Your task to perform on an android device: toggle show notifications on the lock screen Image 0: 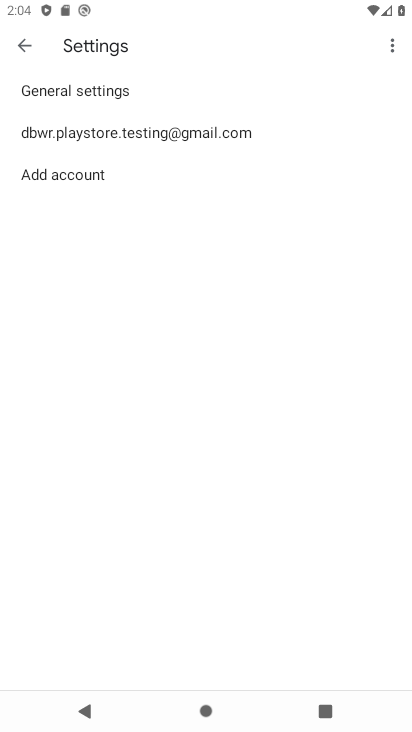
Step 0: press home button
Your task to perform on an android device: toggle show notifications on the lock screen Image 1: 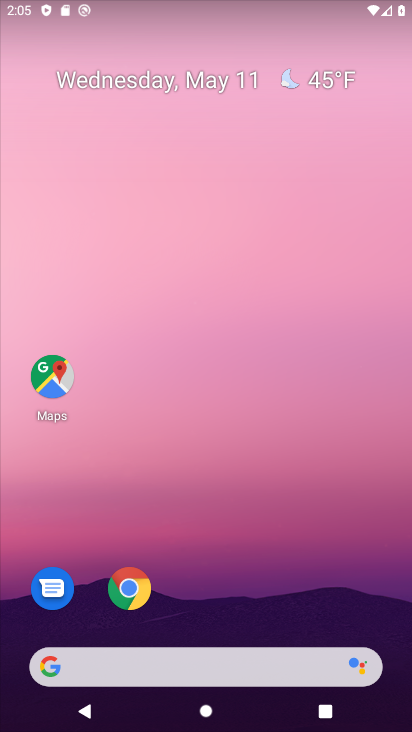
Step 1: drag from (228, 608) to (270, 136)
Your task to perform on an android device: toggle show notifications on the lock screen Image 2: 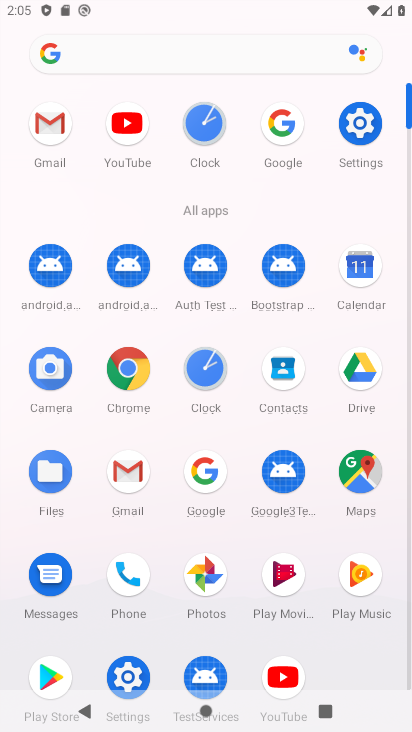
Step 2: click (365, 118)
Your task to perform on an android device: toggle show notifications on the lock screen Image 3: 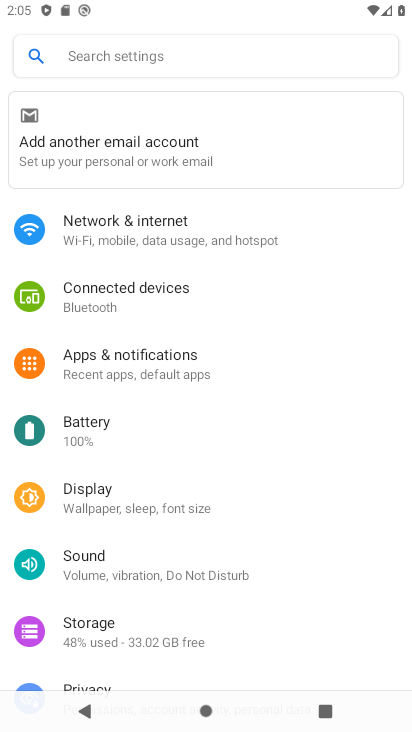
Step 3: click (121, 350)
Your task to perform on an android device: toggle show notifications on the lock screen Image 4: 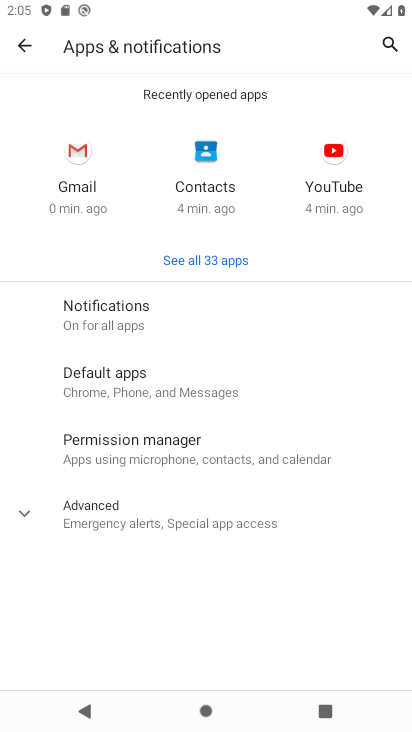
Step 4: click (172, 321)
Your task to perform on an android device: toggle show notifications on the lock screen Image 5: 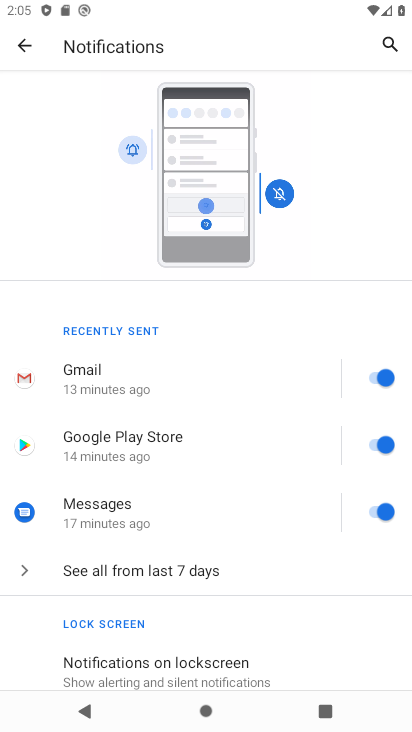
Step 5: click (167, 667)
Your task to perform on an android device: toggle show notifications on the lock screen Image 6: 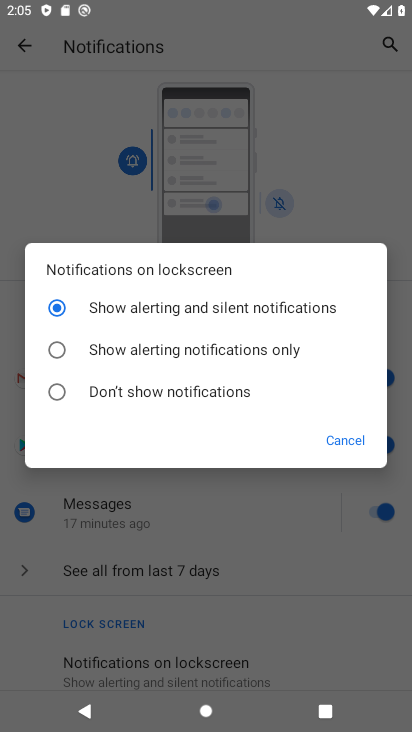
Step 6: click (102, 404)
Your task to perform on an android device: toggle show notifications on the lock screen Image 7: 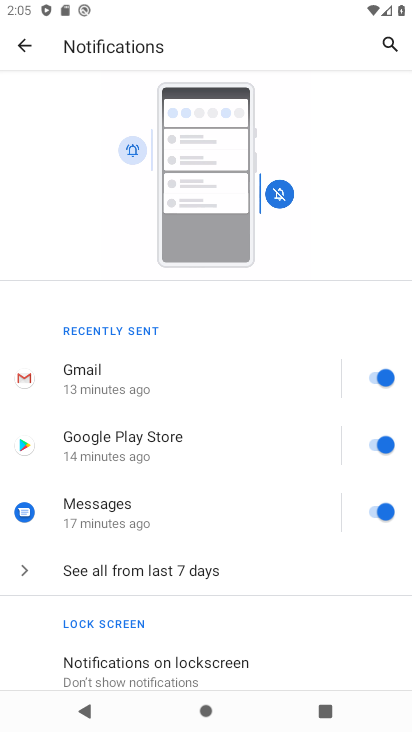
Step 7: task complete